Your task to perform on an android device: empty trash in the gmail app Image 0: 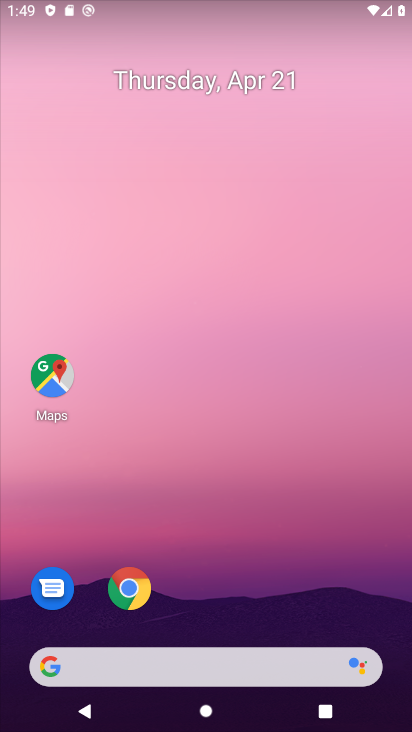
Step 0: drag from (246, 622) to (260, 111)
Your task to perform on an android device: empty trash in the gmail app Image 1: 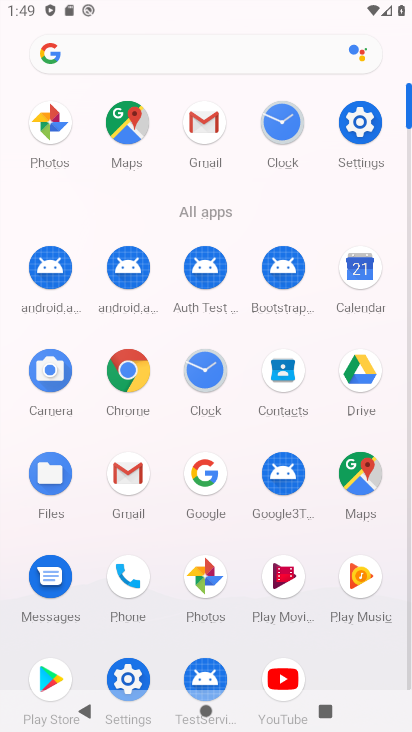
Step 1: click (137, 476)
Your task to perform on an android device: empty trash in the gmail app Image 2: 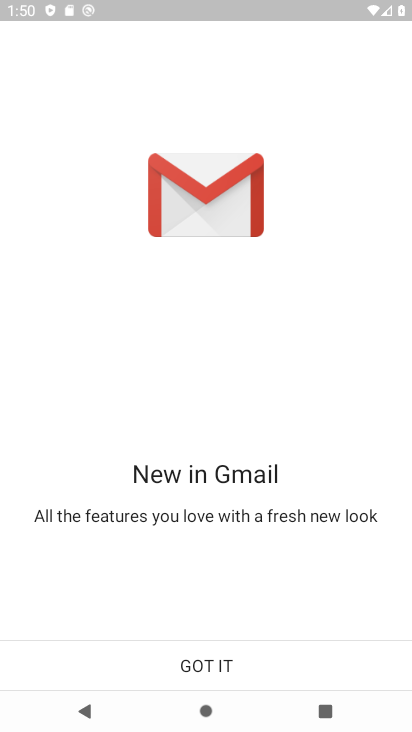
Step 2: click (224, 669)
Your task to perform on an android device: empty trash in the gmail app Image 3: 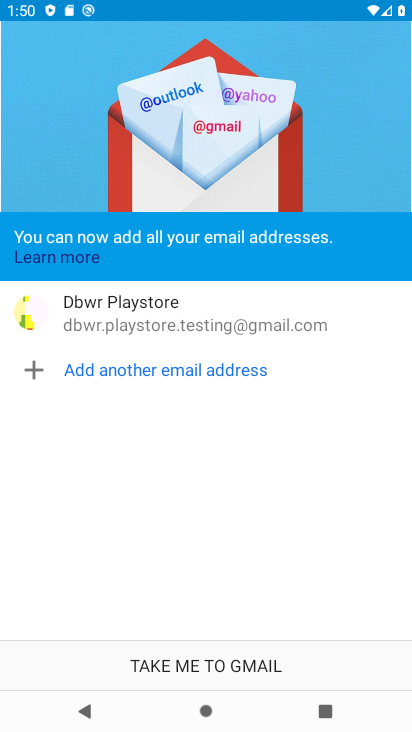
Step 3: click (224, 669)
Your task to perform on an android device: empty trash in the gmail app Image 4: 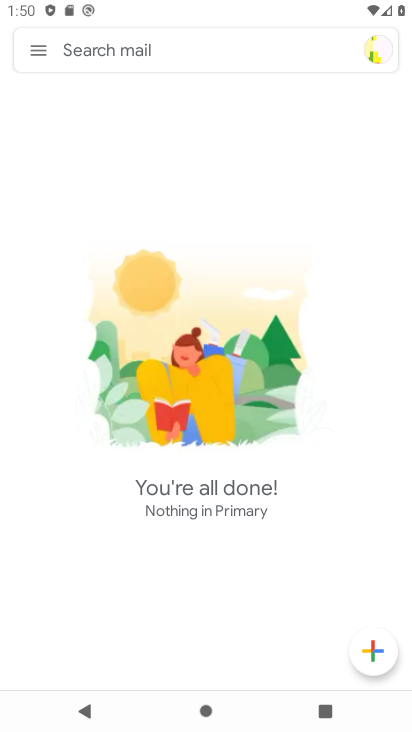
Step 4: click (31, 45)
Your task to perform on an android device: empty trash in the gmail app Image 5: 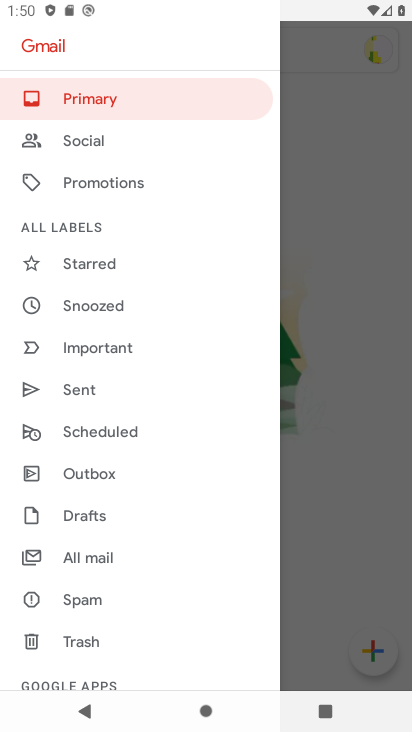
Step 5: drag from (131, 519) to (123, 422)
Your task to perform on an android device: empty trash in the gmail app Image 6: 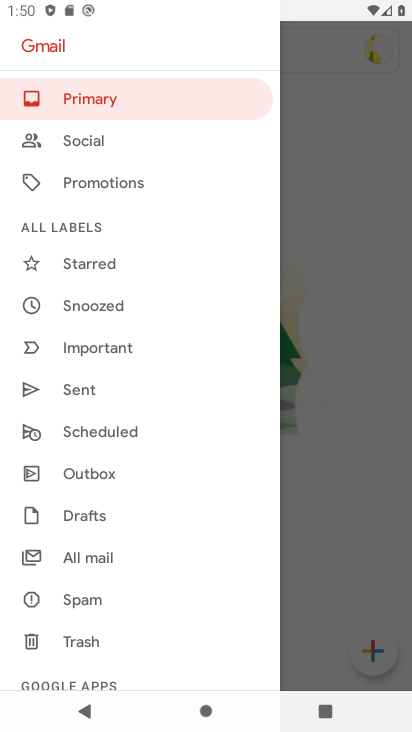
Step 6: click (111, 641)
Your task to perform on an android device: empty trash in the gmail app Image 7: 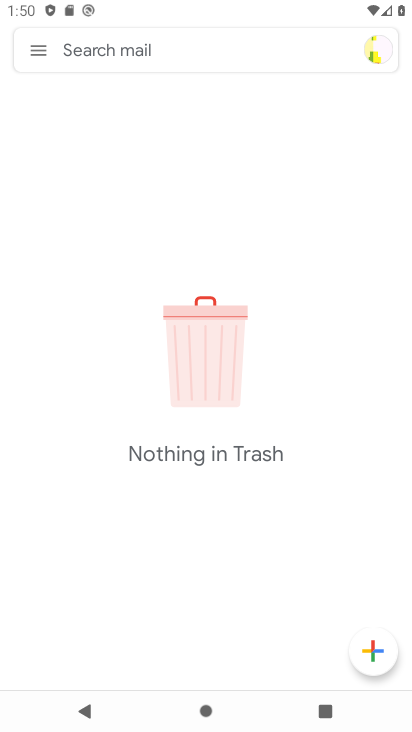
Step 7: task complete